Your task to perform on an android device: turn notification dots off Image 0: 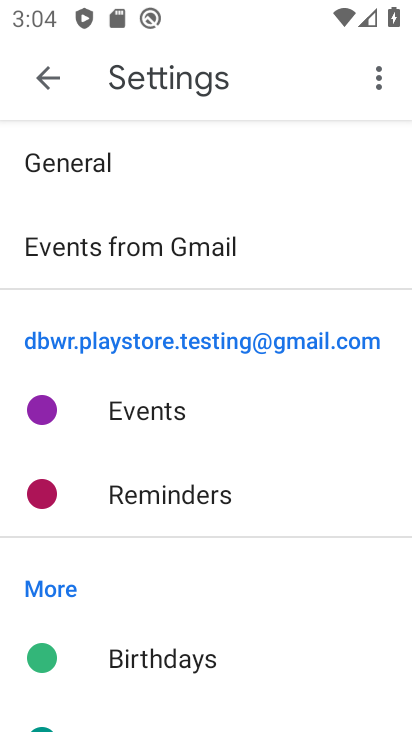
Step 0: press home button
Your task to perform on an android device: turn notification dots off Image 1: 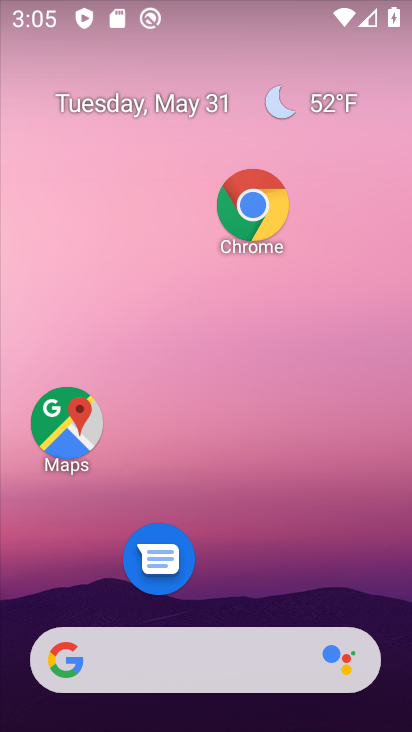
Step 1: drag from (244, 588) to (196, 188)
Your task to perform on an android device: turn notification dots off Image 2: 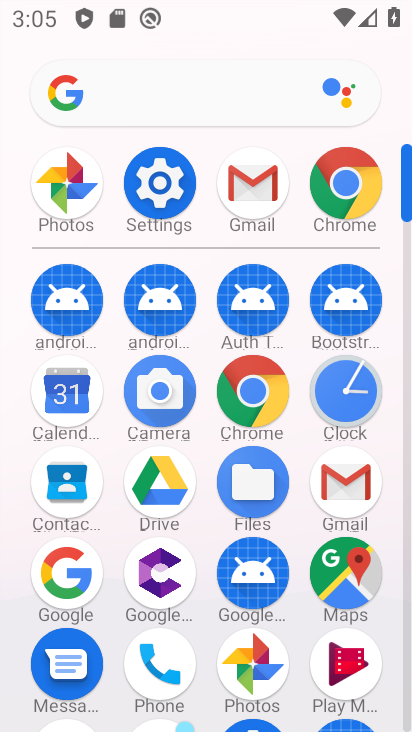
Step 2: click (150, 189)
Your task to perform on an android device: turn notification dots off Image 3: 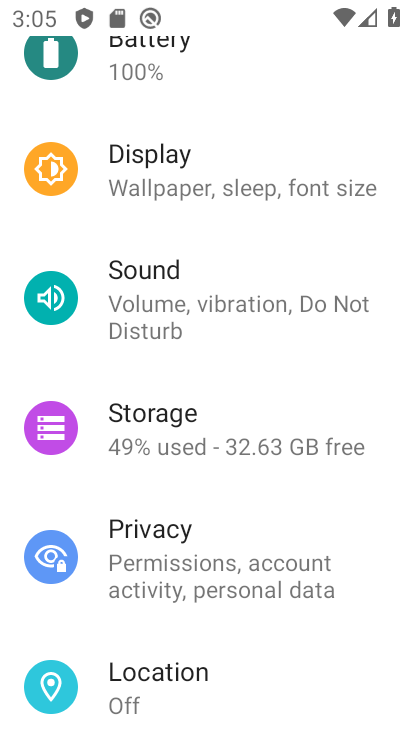
Step 3: drag from (215, 298) to (227, 504)
Your task to perform on an android device: turn notification dots off Image 4: 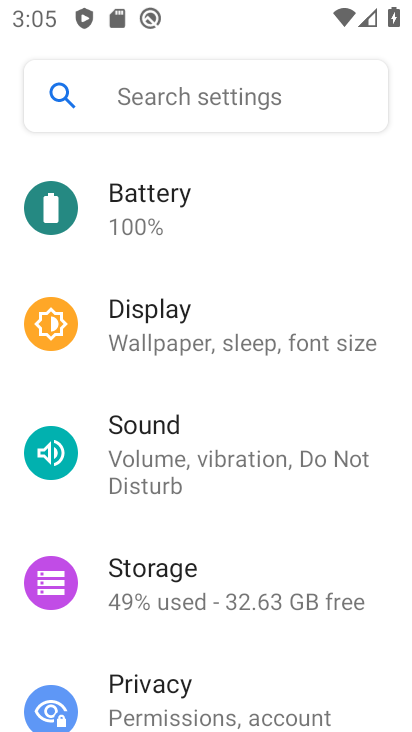
Step 4: drag from (223, 141) to (222, 352)
Your task to perform on an android device: turn notification dots off Image 5: 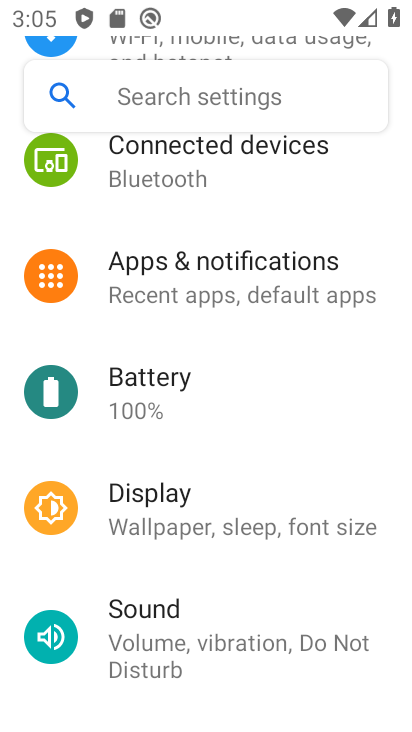
Step 5: click (218, 299)
Your task to perform on an android device: turn notification dots off Image 6: 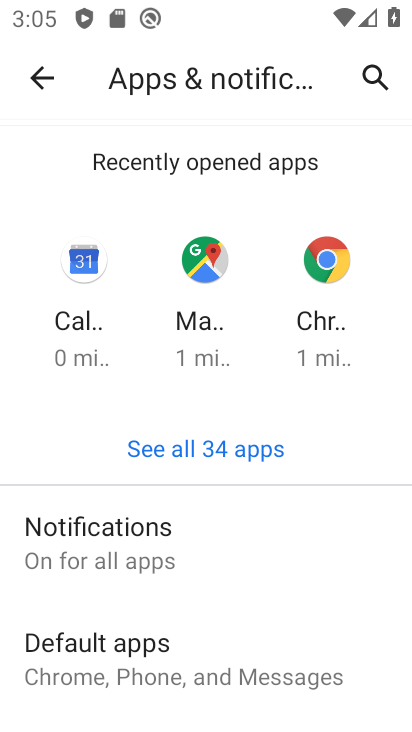
Step 6: click (163, 566)
Your task to perform on an android device: turn notification dots off Image 7: 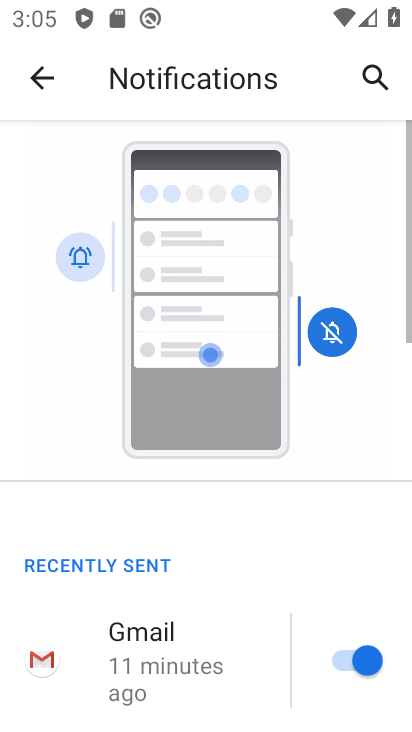
Step 7: drag from (234, 583) to (233, 193)
Your task to perform on an android device: turn notification dots off Image 8: 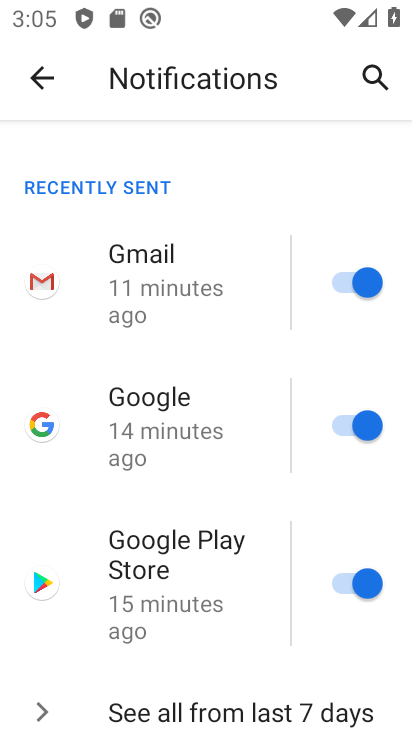
Step 8: drag from (179, 572) to (202, 274)
Your task to perform on an android device: turn notification dots off Image 9: 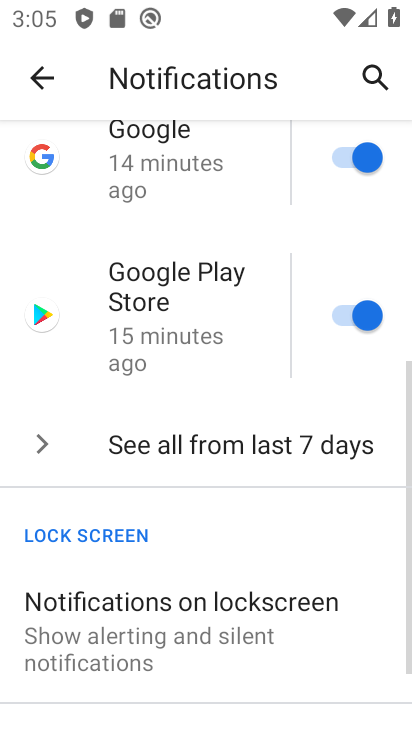
Step 9: drag from (232, 576) to (238, 297)
Your task to perform on an android device: turn notification dots off Image 10: 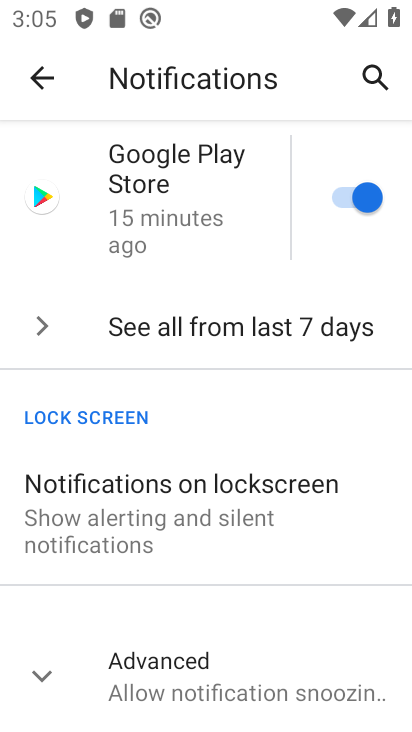
Step 10: drag from (218, 601) to (231, 324)
Your task to perform on an android device: turn notification dots off Image 11: 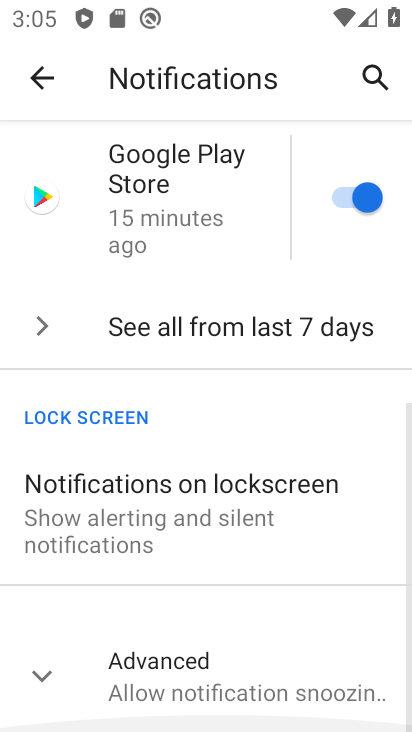
Step 11: click (237, 655)
Your task to perform on an android device: turn notification dots off Image 12: 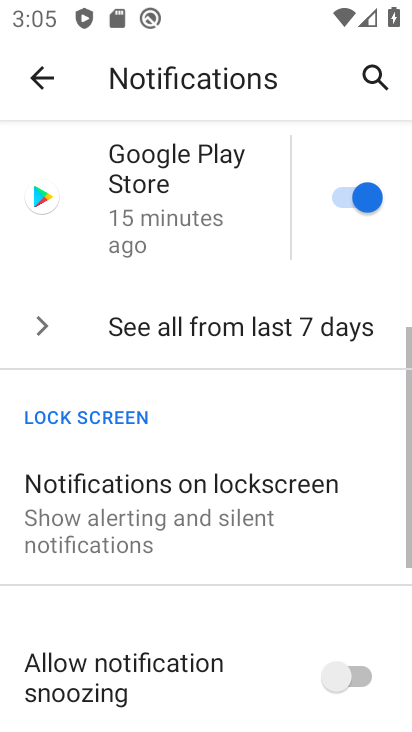
Step 12: drag from (237, 654) to (248, 270)
Your task to perform on an android device: turn notification dots off Image 13: 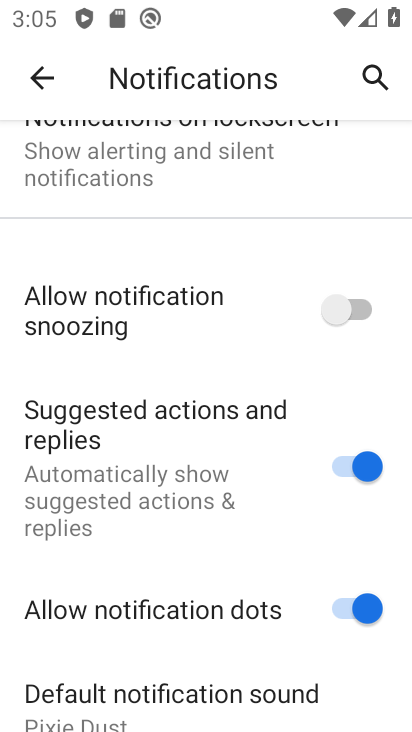
Step 13: click (337, 614)
Your task to perform on an android device: turn notification dots off Image 14: 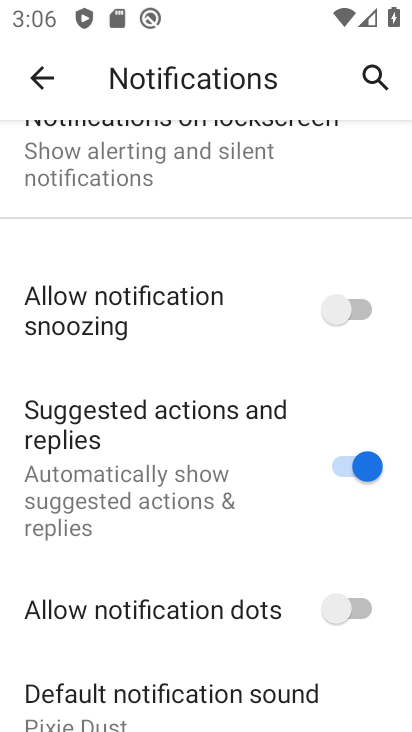
Step 14: task complete